Your task to perform on an android device: Open wifi settings Image 0: 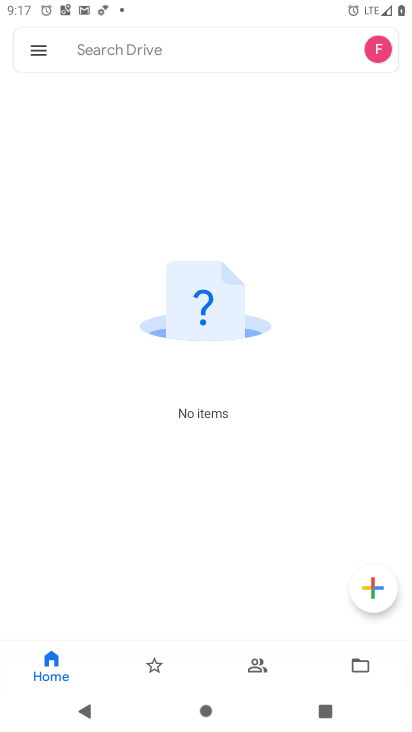
Step 0: press home button
Your task to perform on an android device: Open wifi settings Image 1: 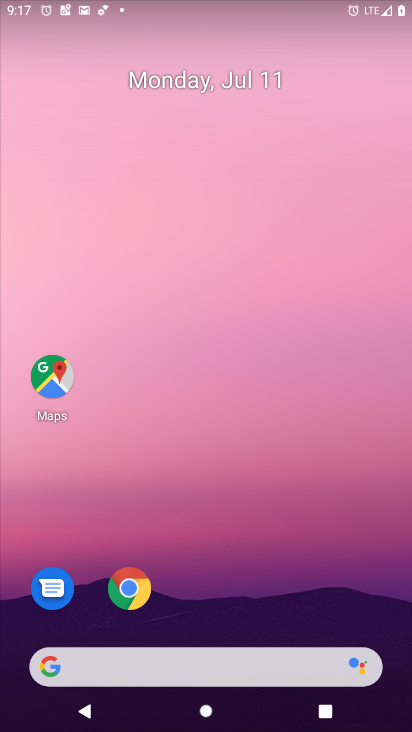
Step 1: drag from (197, 665) to (347, 79)
Your task to perform on an android device: Open wifi settings Image 2: 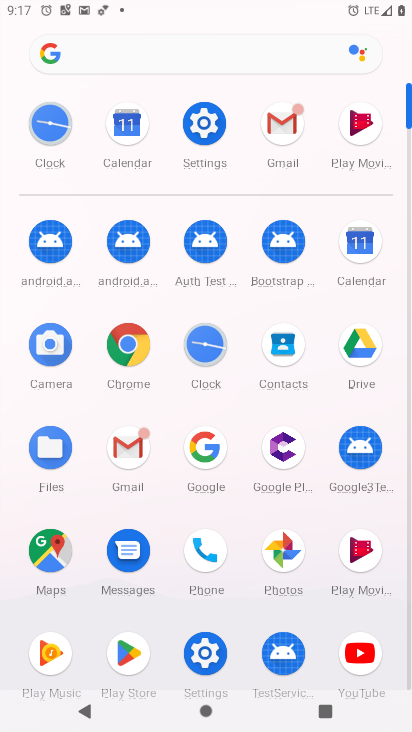
Step 2: click (205, 121)
Your task to perform on an android device: Open wifi settings Image 3: 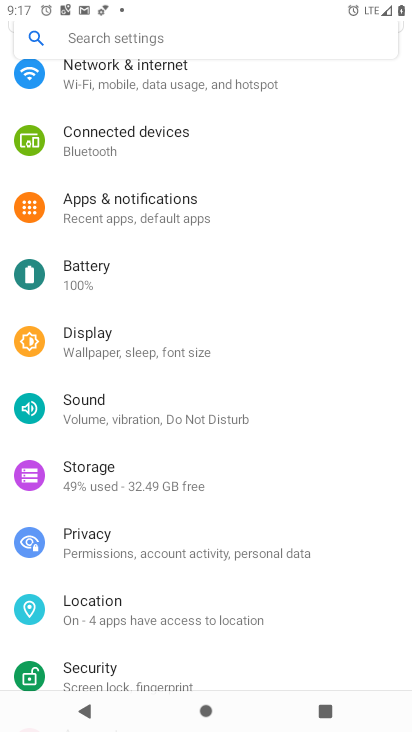
Step 3: drag from (325, 116) to (251, 489)
Your task to perform on an android device: Open wifi settings Image 4: 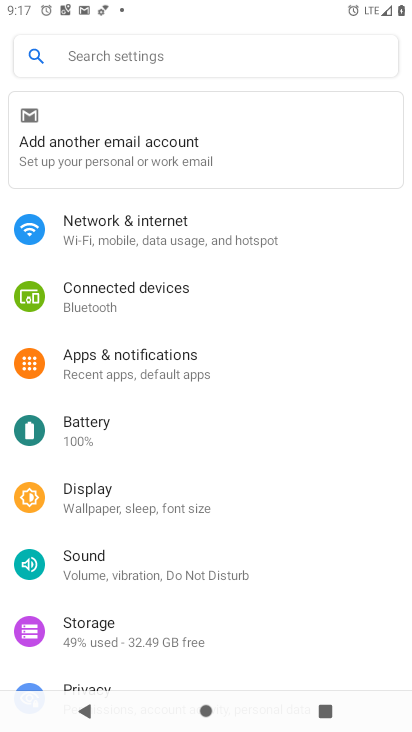
Step 4: click (166, 226)
Your task to perform on an android device: Open wifi settings Image 5: 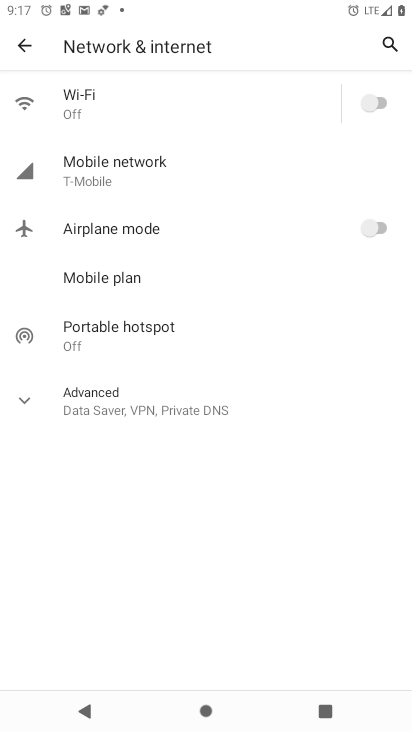
Step 5: click (90, 108)
Your task to perform on an android device: Open wifi settings Image 6: 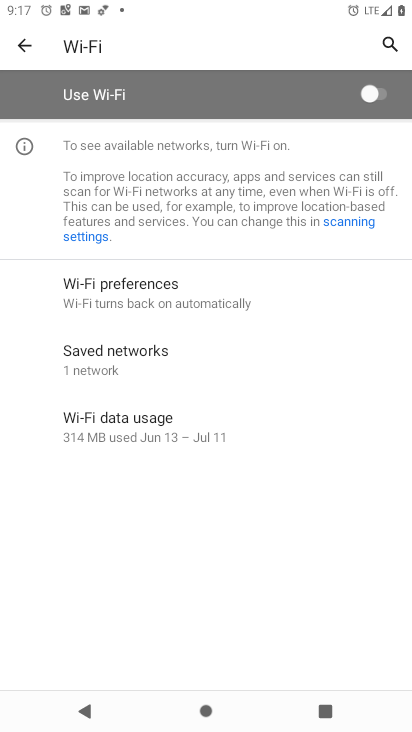
Step 6: task complete